Your task to perform on an android device: toggle location history Image 0: 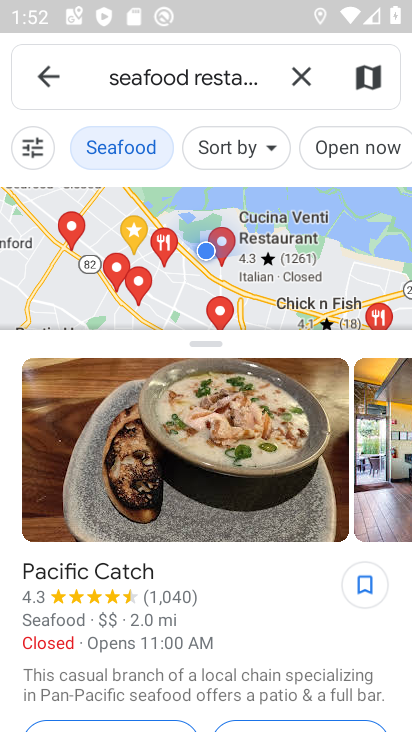
Step 0: press home button
Your task to perform on an android device: toggle location history Image 1: 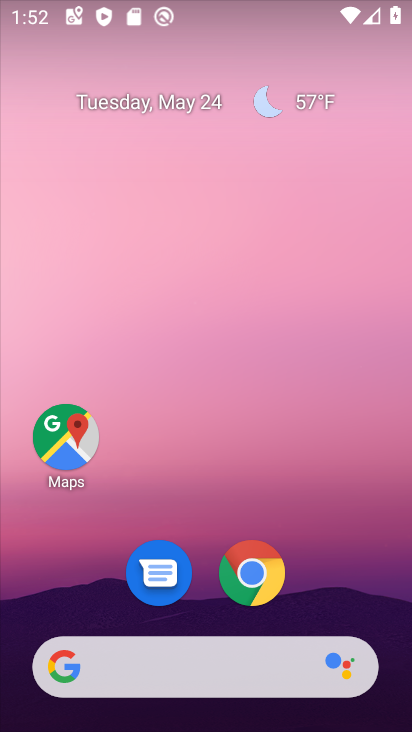
Step 1: drag from (357, 589) to (376, 184)
Your task to perform on an android device: toggle location history Image 2: 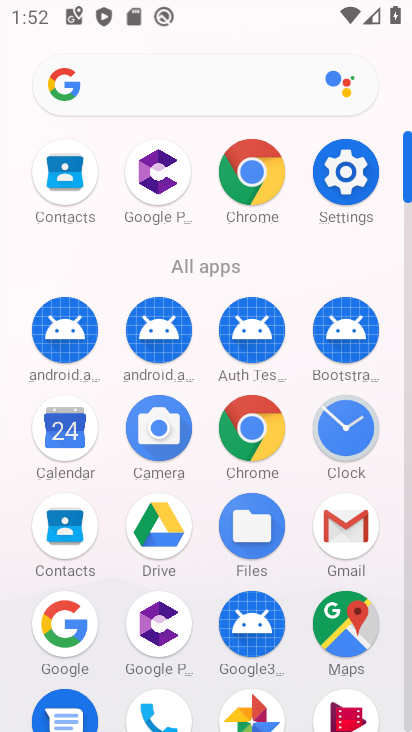
Step 2: drag from (293, 600) to (302, 314)
Your task to perform on an android device: toggle location history Image 3: 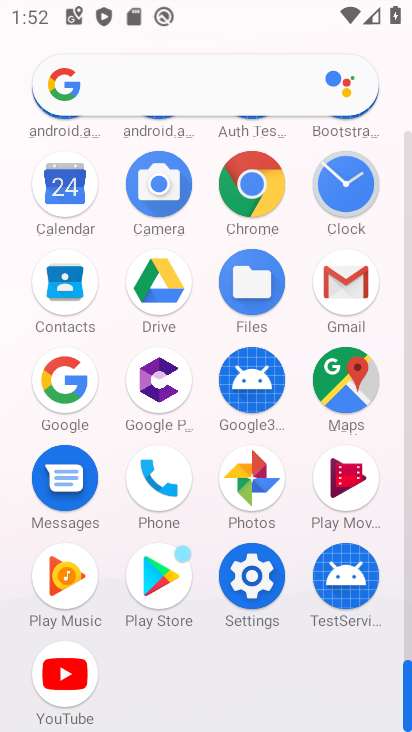
Step 3: click (257, 571)
Your task to perform on an android device: toggle location history Image 4: 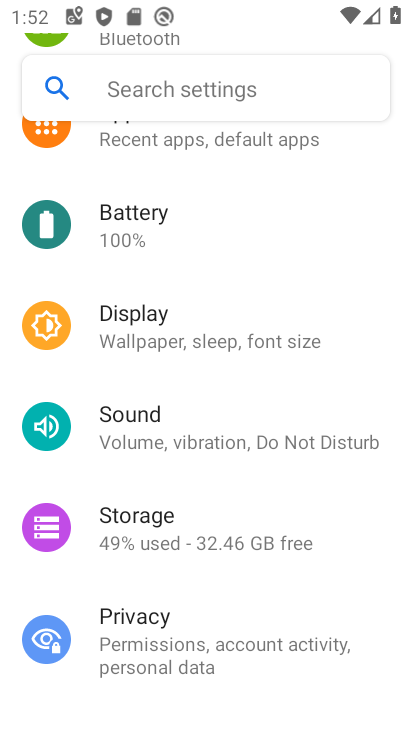
Step 4: drag from (283, 497) to (293, 83)
Your task to perform on an android device: toggle location history Image 5: 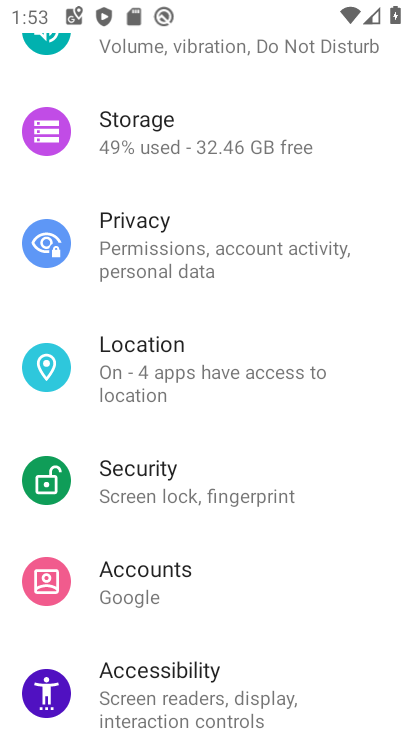
Step 5: click (187, 353)
Your task to perform on an android device: toggle location history Image 6: 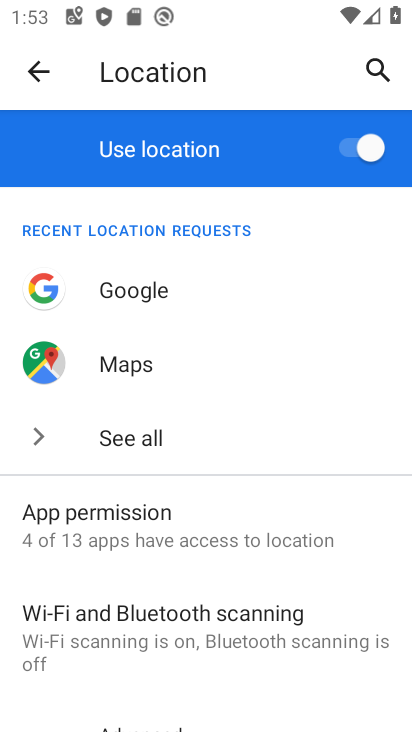
Step 6: drag from (277, 685) to (283, 392)
Your task to perform on an android device: toggle location history Image 7: 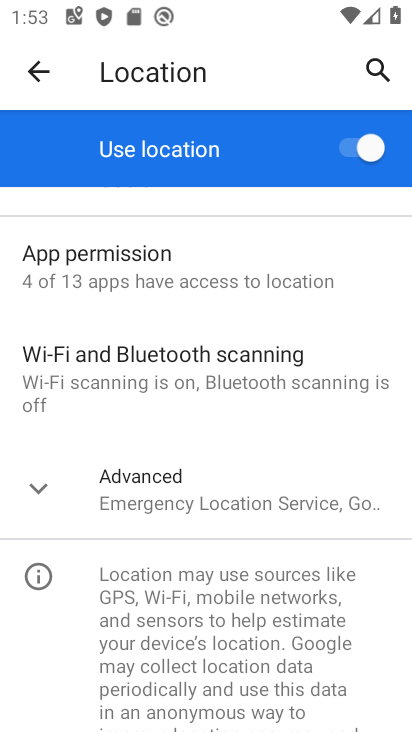
Step 7: click (207, 492)
Your task to perform on an android device: toggle location history Image 8: 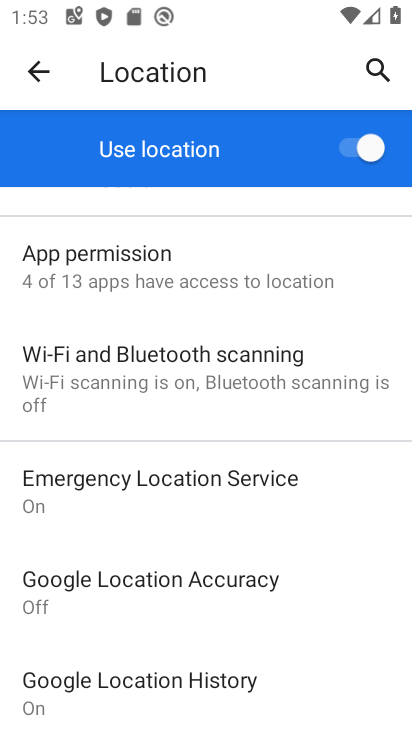
Step 8: drag from (228, 608) to (232, 402)
Your task to perform on an android device: toggle location history Image 9: 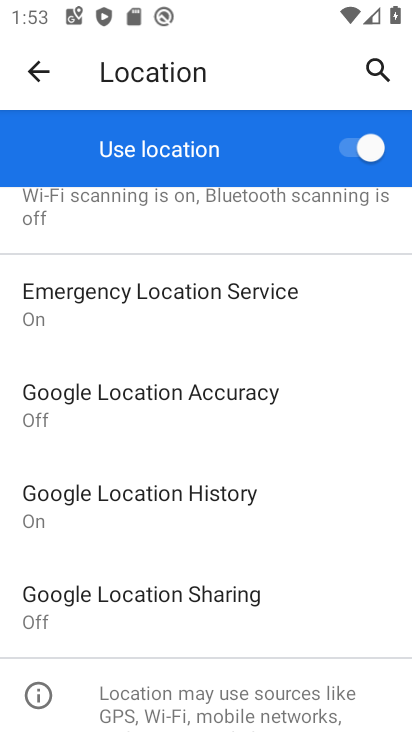
Step 9: click (221, 502)
Your task to perform on an android device: toggle location history Image 10: 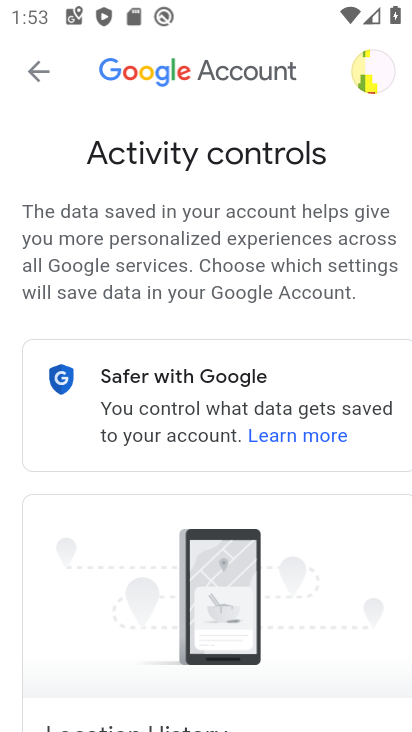
Step 10: drag from (325, 578) to (327, 317)
Your task to perform on an android device: toggle location history Image 11: 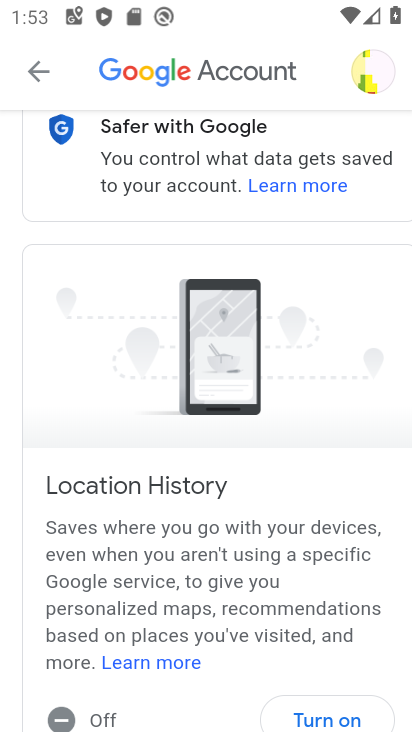
Step 11: drag from (333, 599) to (329, 415)
Your task to perform on an android device: toggle location history Image 12: 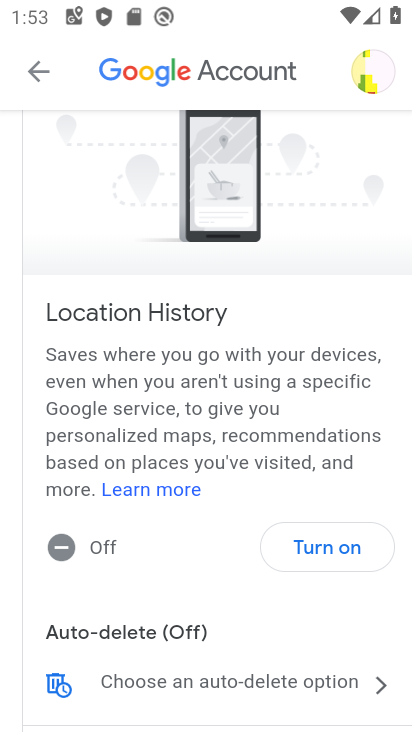
Step 12: click (311, 554)
Your task to perform on an android device: toggle location history Image 13: 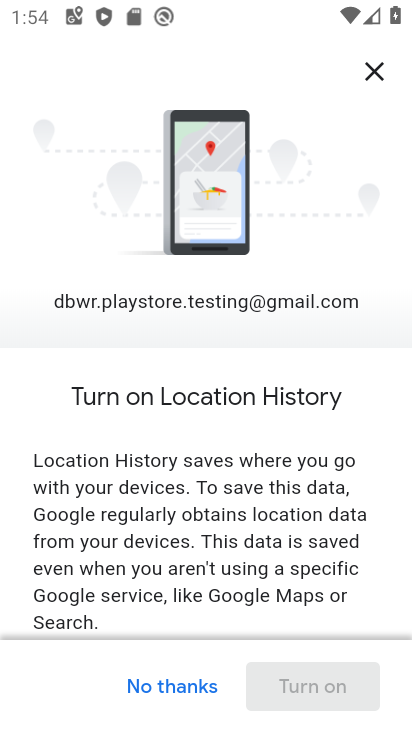
Step 13: drag from (319, 616) to (298, 230)
Your task to perform on an android device: toggle location history Image 14: 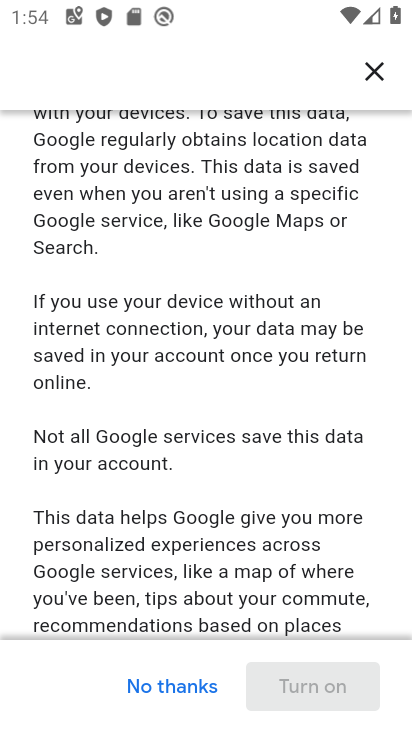
Step 14: drag from (320, 593) to (314, 168)
Your task to perform on an android device: toggle location history Image 15: 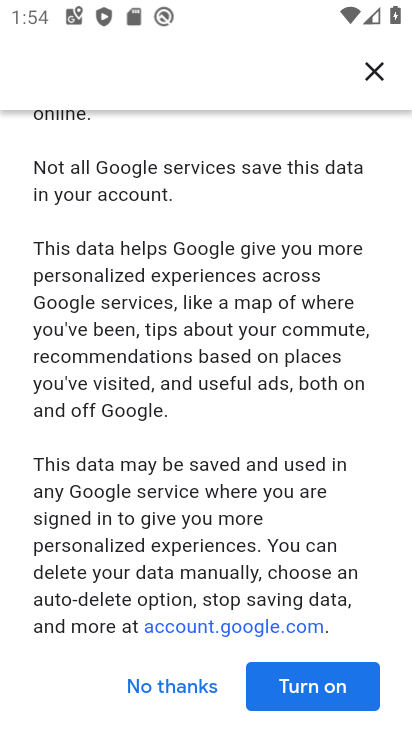
Step 15: click (319, 692)
Your task to perform on an android device: toggle location history Image 16: 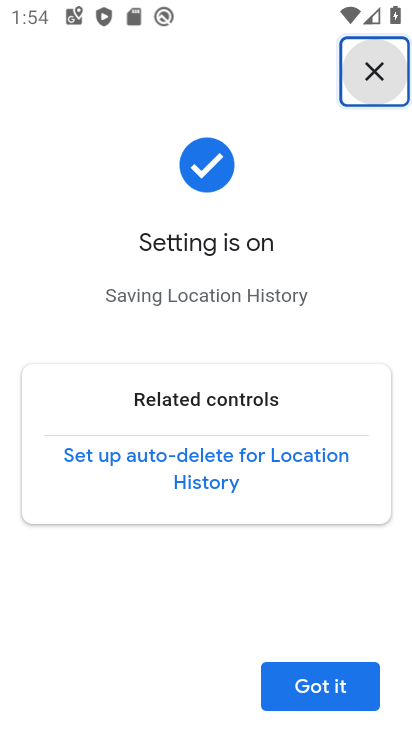
Step 16: click (309, 697)
Your task to perform on an android device: toggle location history Image 17: 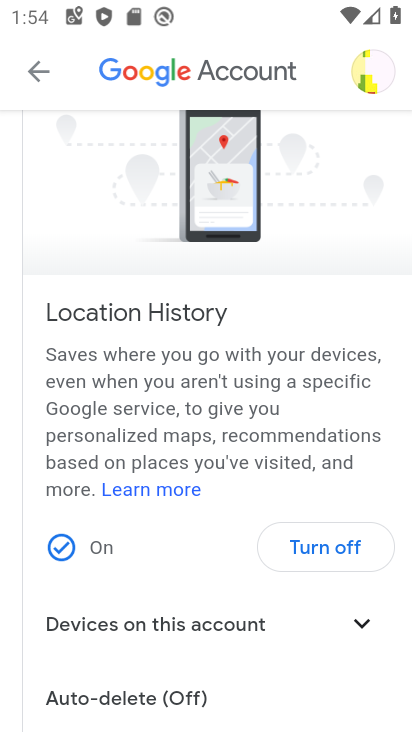
Step 17: task complete